Your task to perform on an android device: toggle improve location accuracy Image 0: 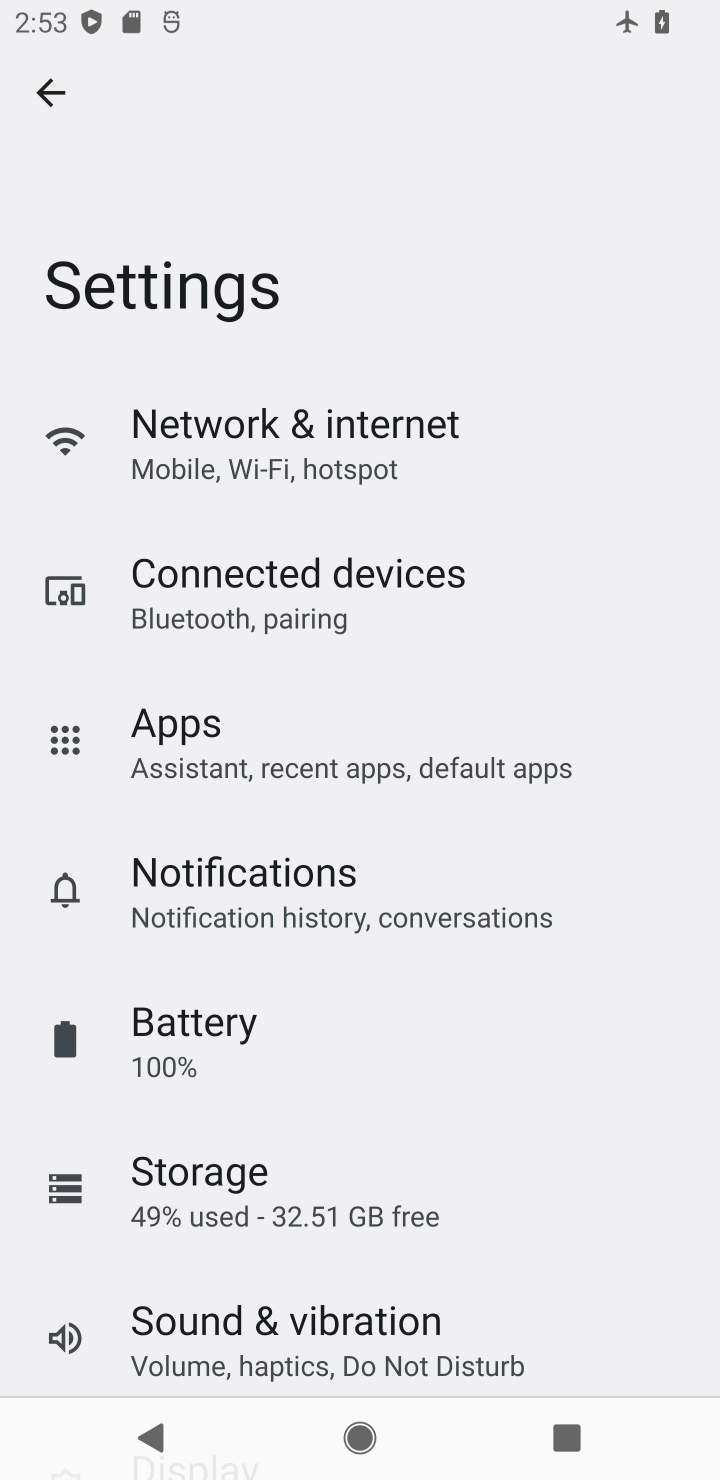
Step 0: drag from (342, 1261) to (432, 316)
Your task to perform on an android device: toggle improve location accuracy Image 1: 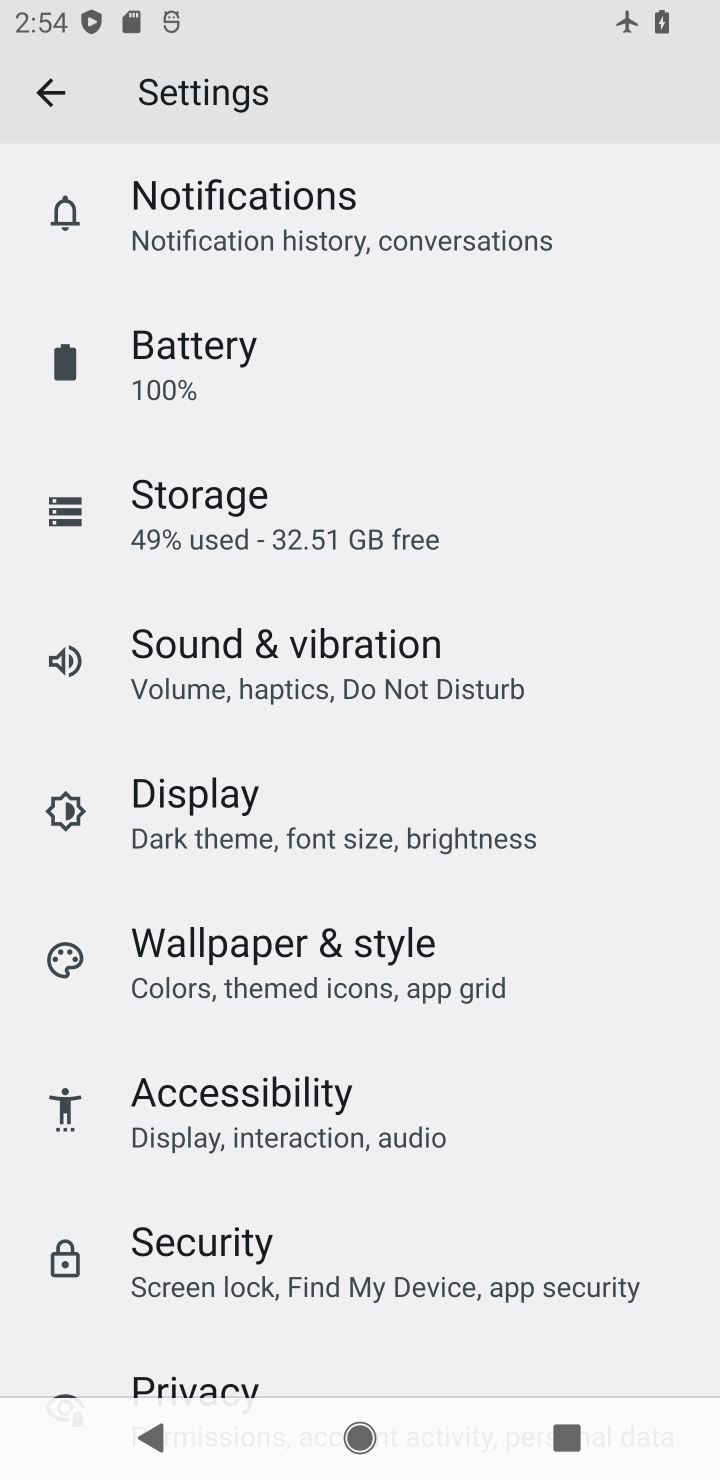
Step 1: drag from (331, 1270) to (530, 512)
Your task to perform on an android device: toggle improve location accuracy Image 2: 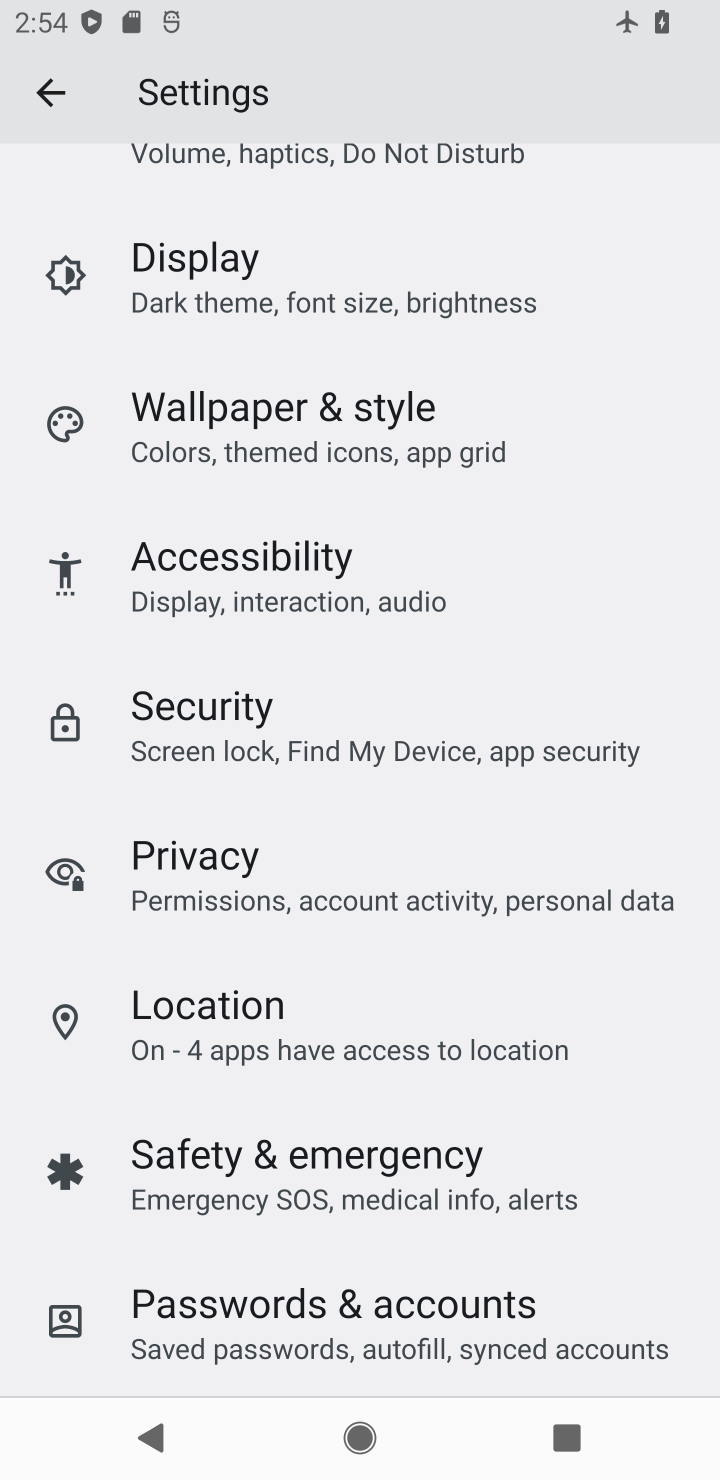
Step 2: click (270, 1029)
Your task to perform on an android device: toggle improve location accuracy Image 3: 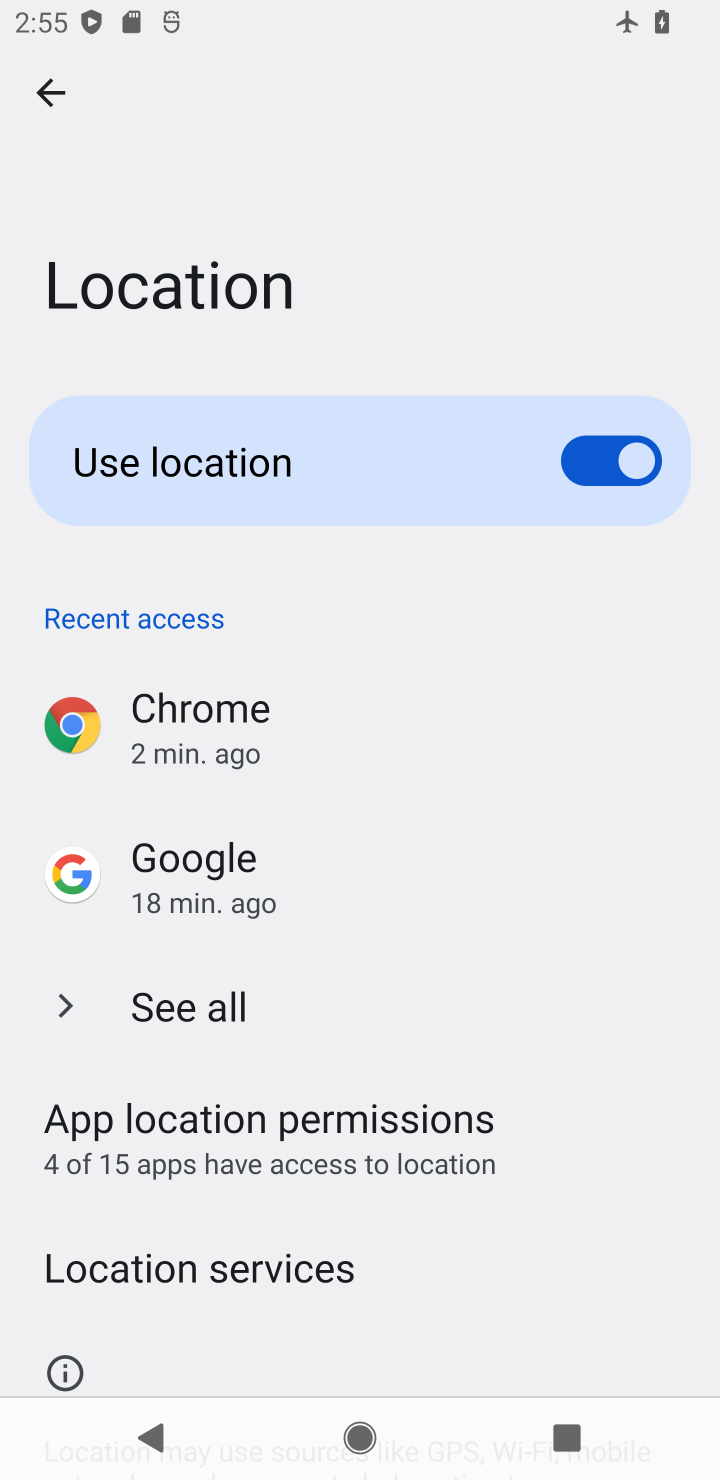
Step 3: click (133, 1219)
Your task to perform on an android device: toggle improve location accuracy Image 4: 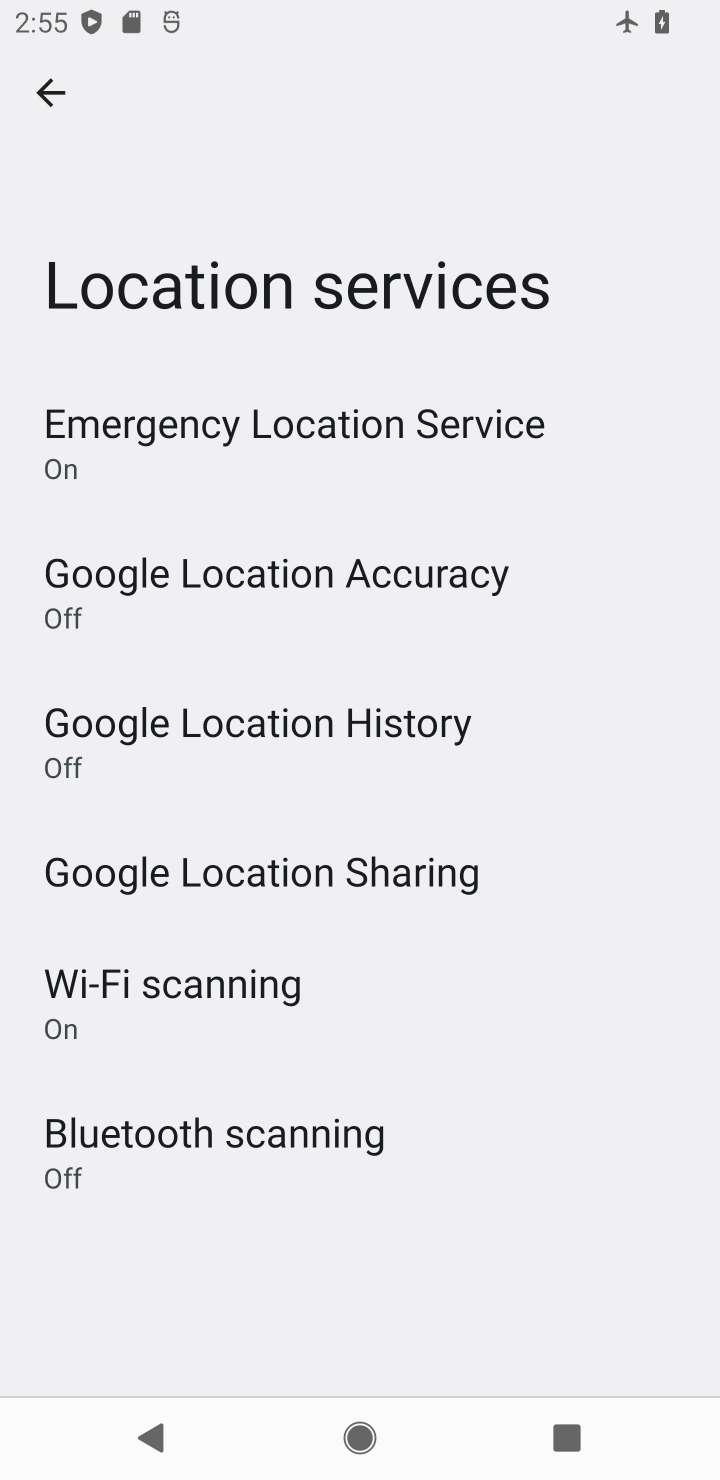
Step 4: click (328, 578)
Your task to perform on an android device: toggle improve location accuracy Image 5: 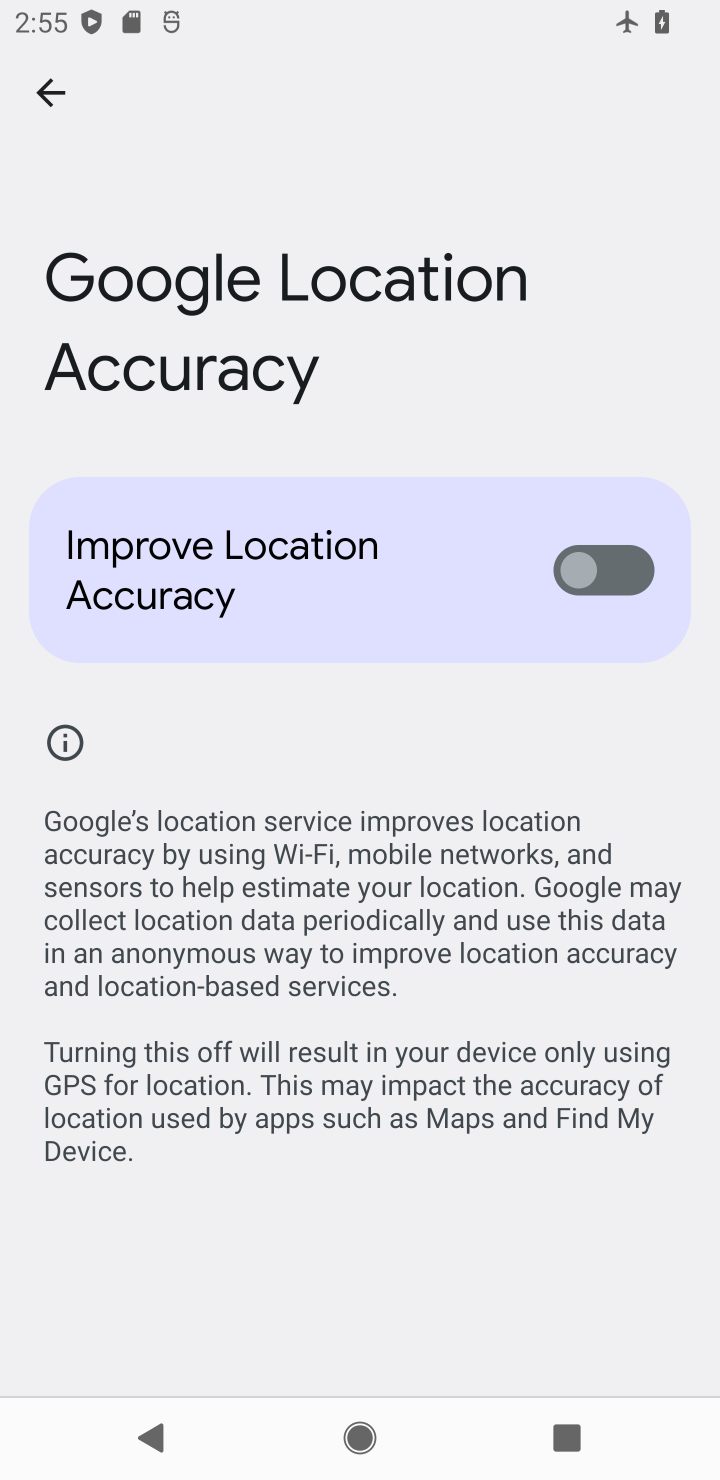
Step 5: click (579, 572)
Your task to perform on an android device: toggle improve location accuracy Image 6: 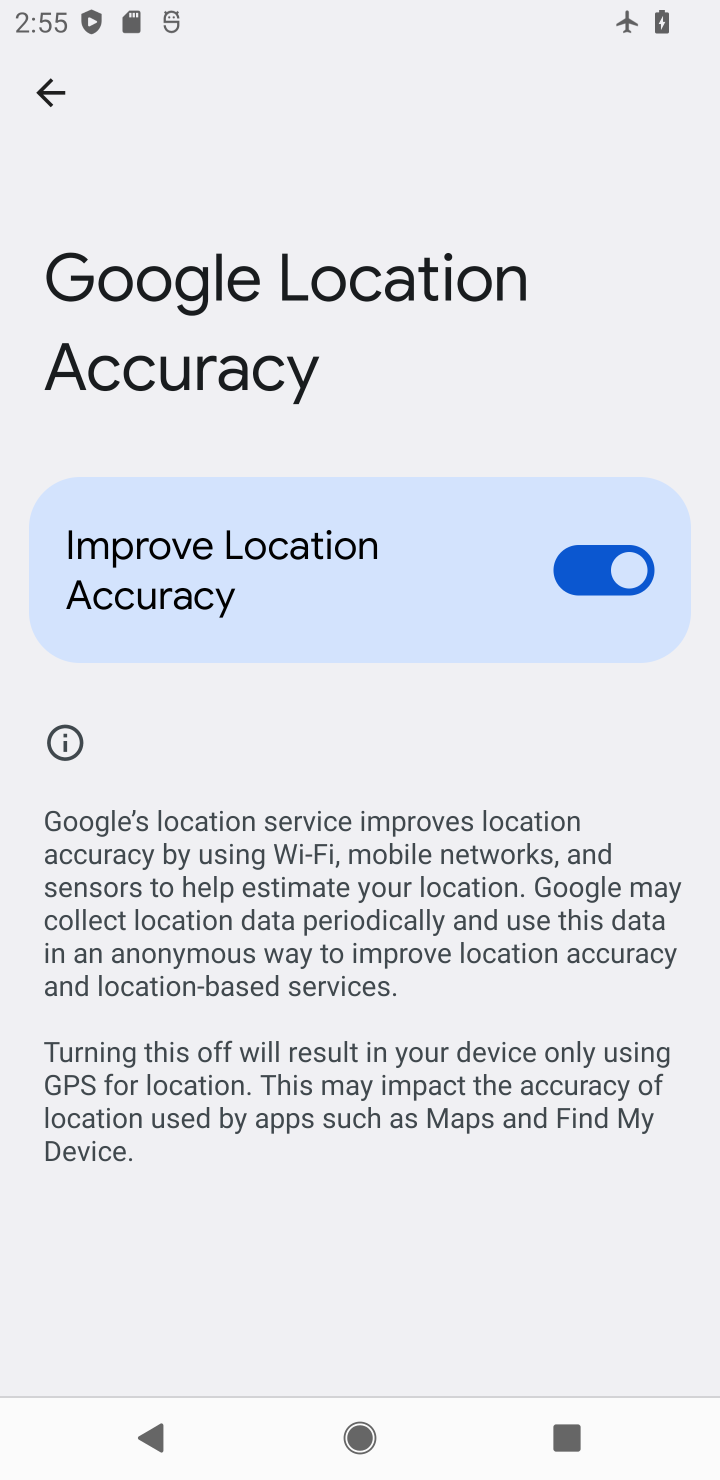
Step 6: task complete